Your task to perform on an android device: Open Yahoo.com Image 0: 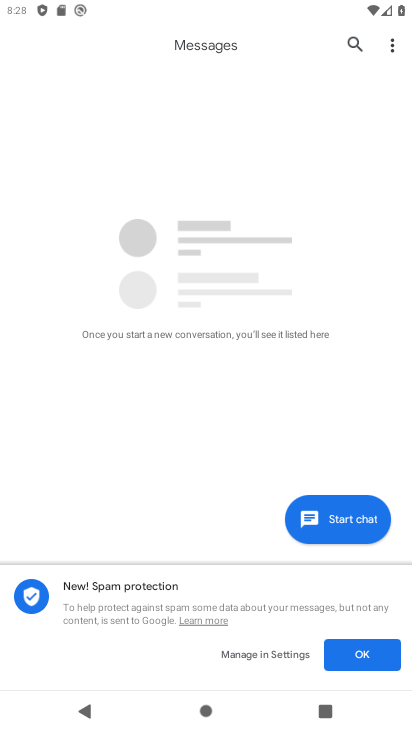
Step 0: press home button
Your task to perform on an android device: Open Yahoo.com Image 1: 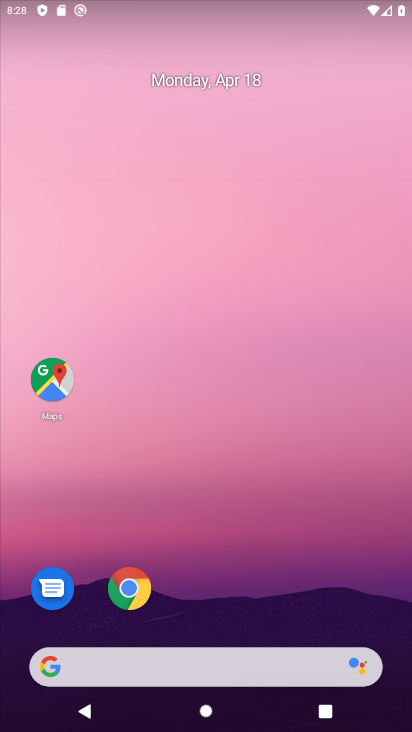
Step 1: click (130, 571)
Your task to perform on an android device: Open Yahoo.com Image 2: 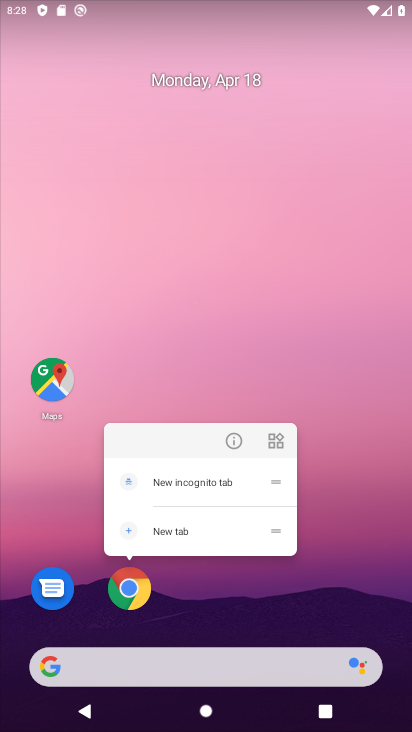
Step 2: click (133, 585)
Your task to perform on an android device: Open Yahoo.com Image 3: 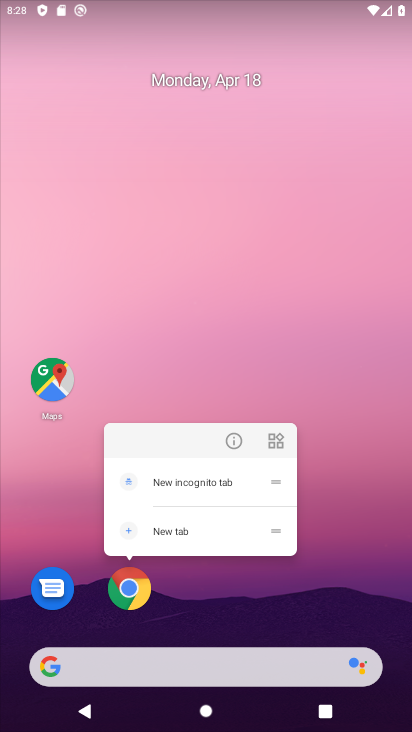
Step 3: click (133, 585)
Your task to perform on an android device: Open Yahoo.com Image 4: 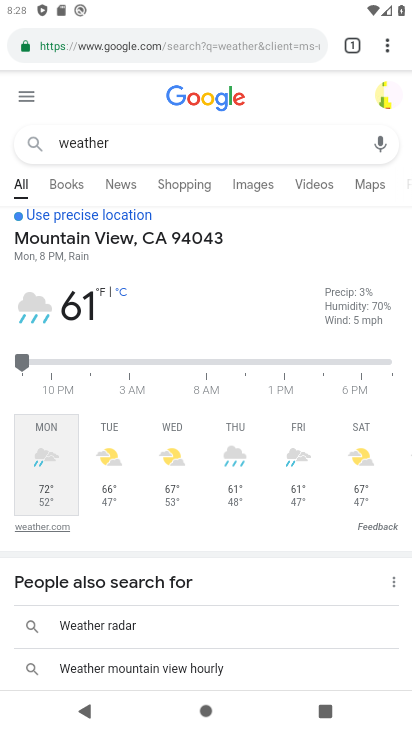
Step 4: click (350, 50)
Your task to perform on an android device: Open Yahoo.com Image 5: 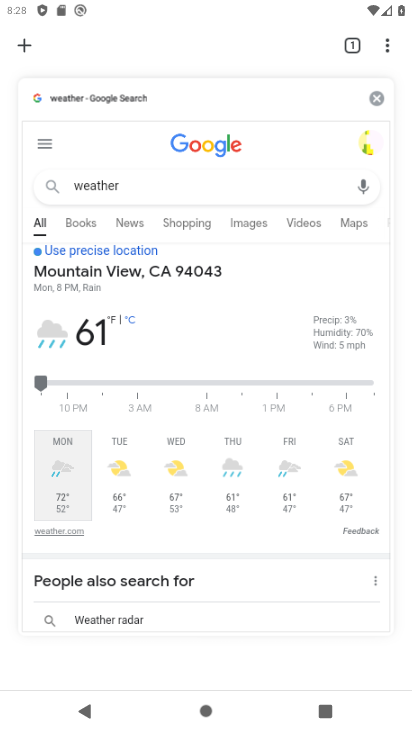
Step 5: click (20, 38)
Your task to perform on an android device: Open Yahoo.com Image 6: 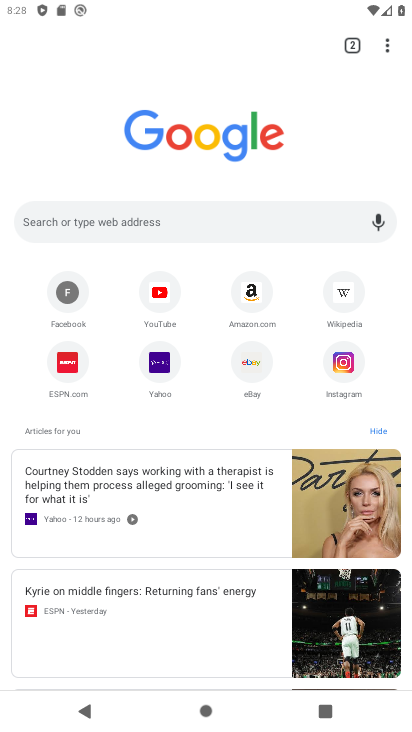
Step 6: click (159, 372)
Your task to perform on an android device: Open Yahoo.com Image 7: 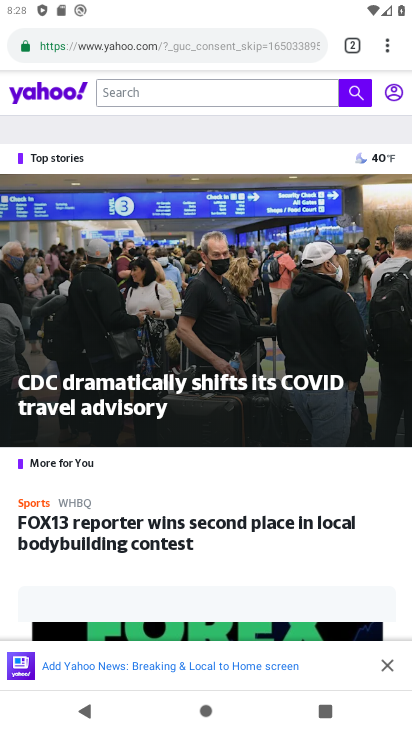
Step 7: task complete